Your task to perform on an android device: turn on notifications settings in the gmail app Image 0: 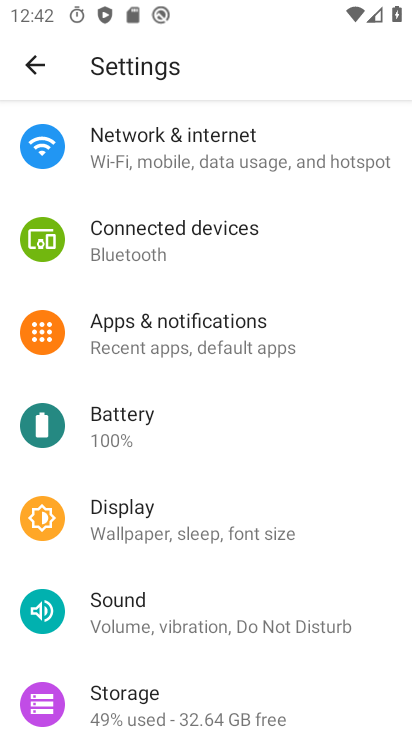
Step 0: press home button
Your task to perform on an android device: turn on notifications settings in the gmail app Image 1: 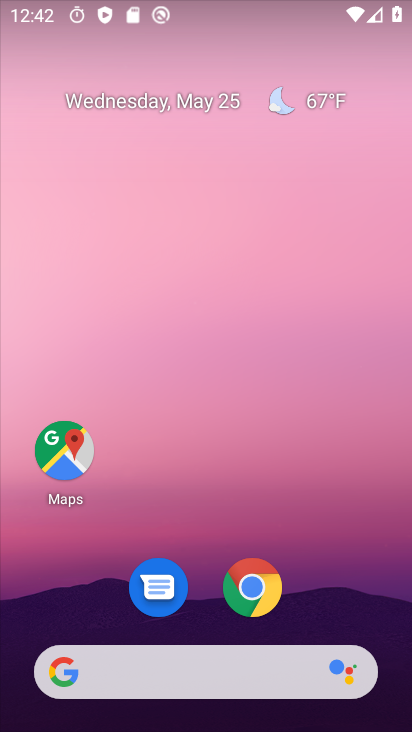
Step 1: drag from (197, 666) to (195, 124)
Your task to perform on an android device: turn on notifications settings in the gmail app Image 2: 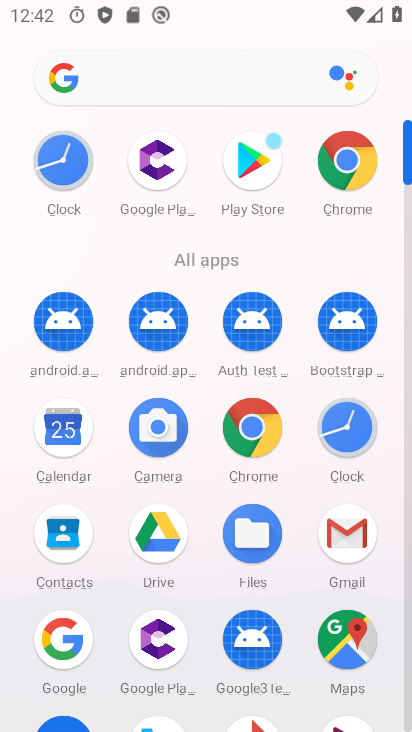
Step 2: click (357, 542)
Your task to perform on an android device: turn on notifications settings in the gmail app Image 3: 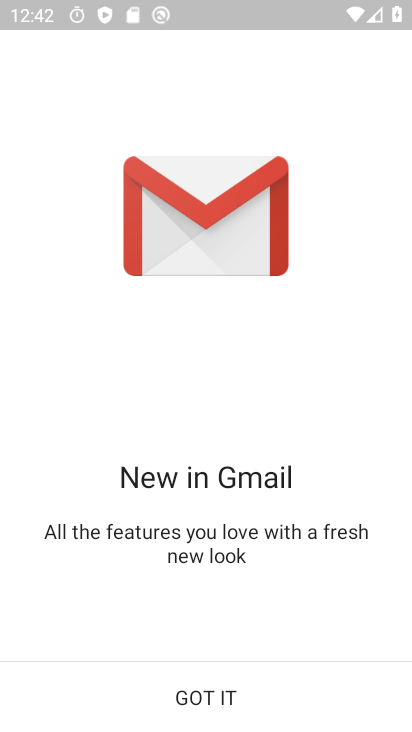
Step 3: click (198, 687)
Your task to perform on an android device: turn on notifications settings in the gmail app Image 4: 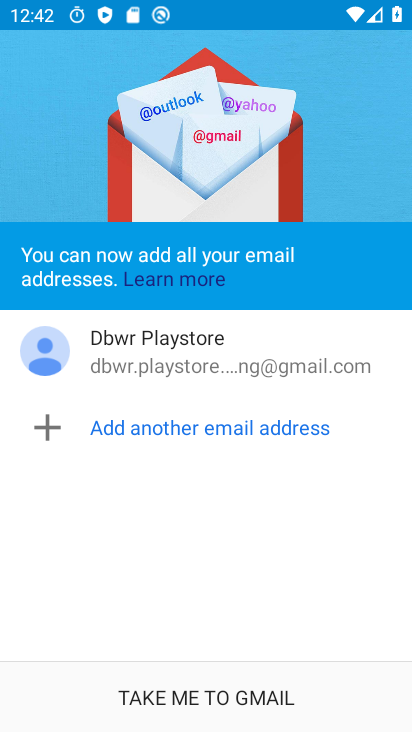
Step 4: click (198, 687)
Your task to perform on an android device: turn on notifications settings in the gmail app Image 5: 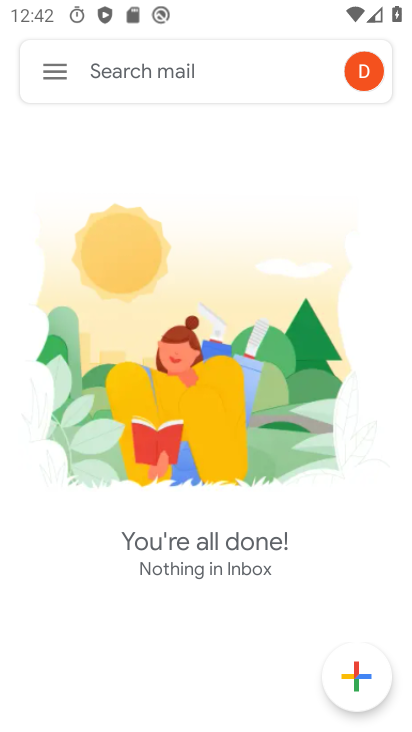
Step 5: click (54, 70)
Your task to perform on an android device: turn on notifications settings in the gmail app Image 6: 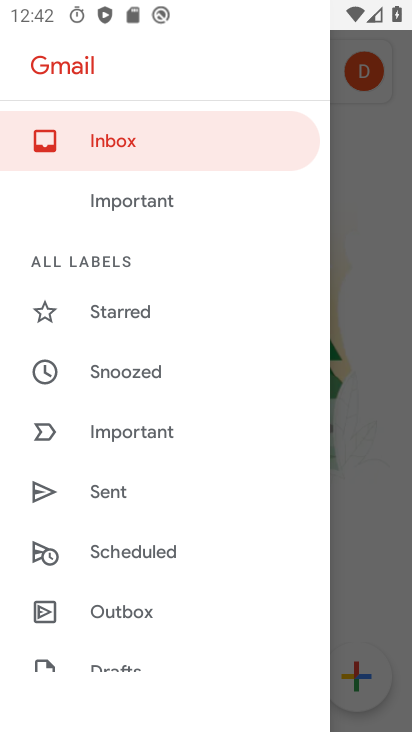
Step 6: drag from (102, 661) to (102, 199)
Your task to perform on an android device: turn on notifications settings in the gmail app Image 7: 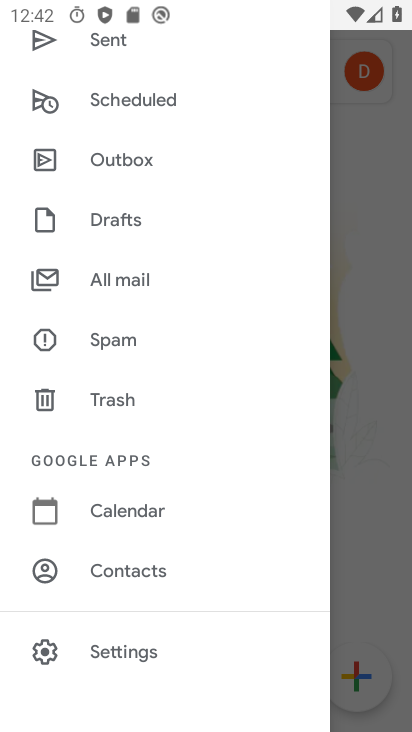
Step 7: click (116, 653)
Your task to perform on an android device: turn on notifications settings in the gmail app Image 8: 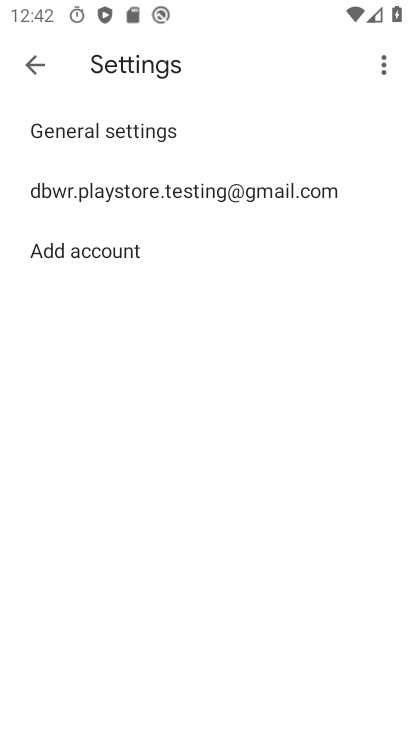
Step 8: click (164, 194)
Your task to perform on an android device: turn on notifications settings in the gmail app Image 9: 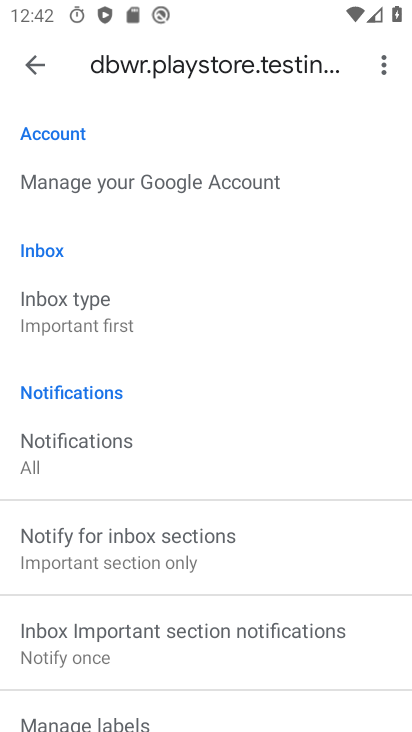
Step 9: task complete